Your task to perform on an android device: open app "DoorDash - Food Delivery" Image 0: 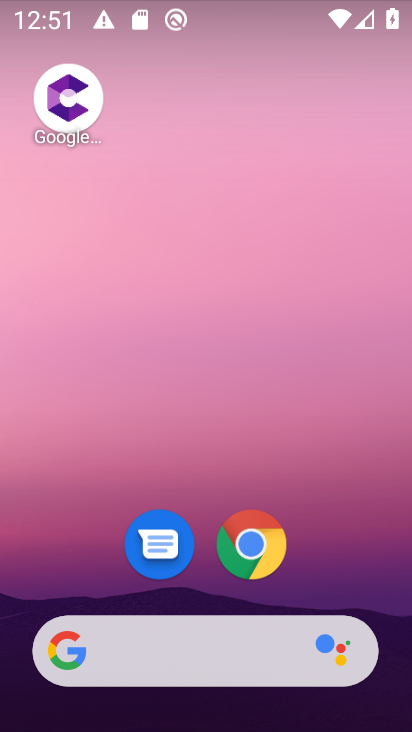
Step 0: drag from (357, 599) to (230, 50)
Your task to perform on an android device: open app "DoorDash - Food Delivery" Image 1: 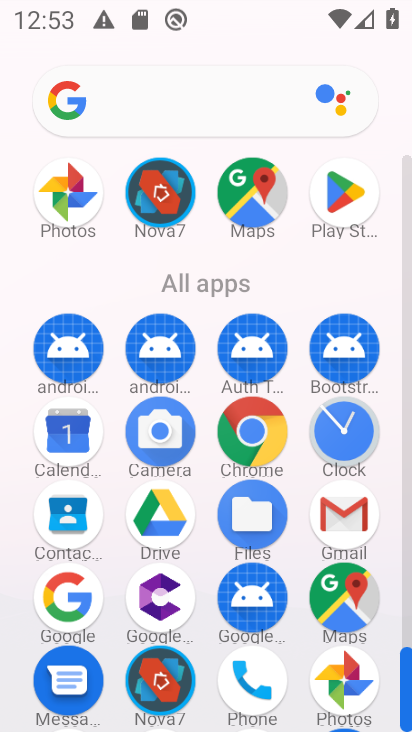
Step 1: click (352, 203)
Your task to perform on an android device: open app "DoorDash - Food Delivery" Image 2: 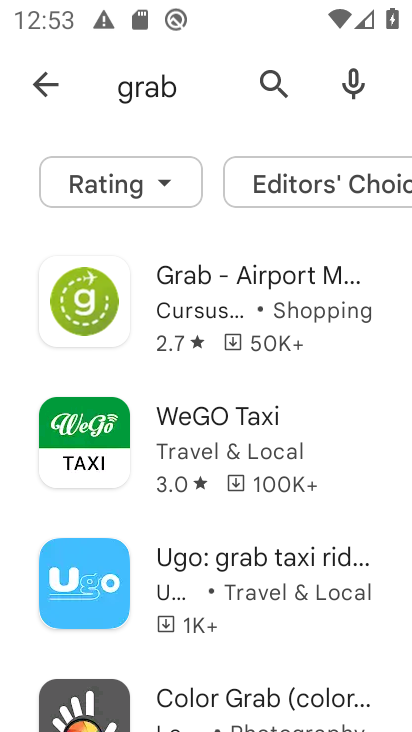
Step 2: press back button
Your task to perform on an android device: open app "DoorDash - Food Delivery" Image 3: 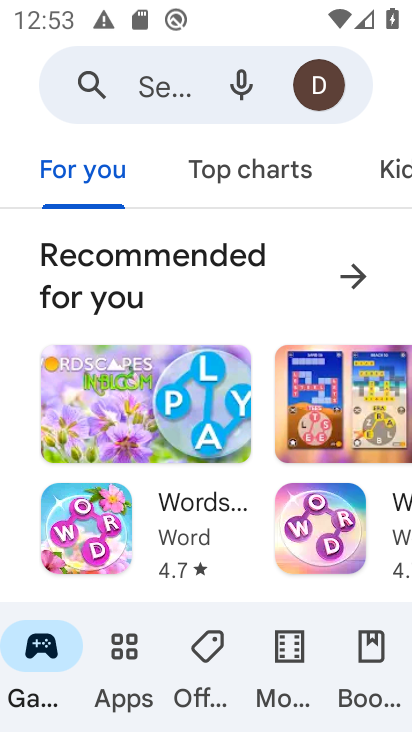
Step 3: click (143, 89)
Your task to perform on an android device: open app "DoorDash - Food Delivery" Image 4: 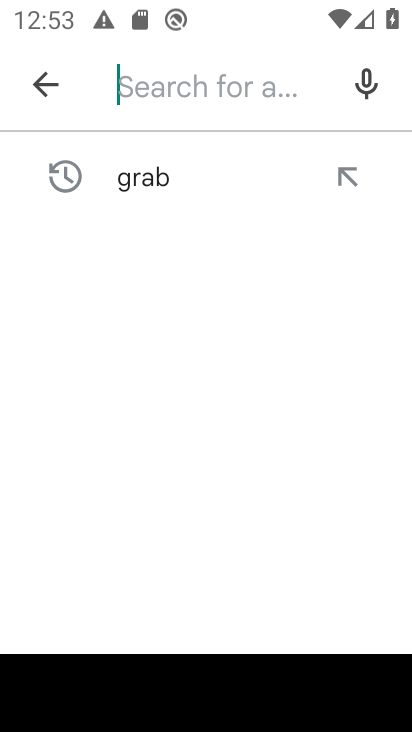
Step 4: type "DoorDash - Food Delivery"
Your task to perform on an android device: open app "DoorDash - Food Delivery" Image 5: 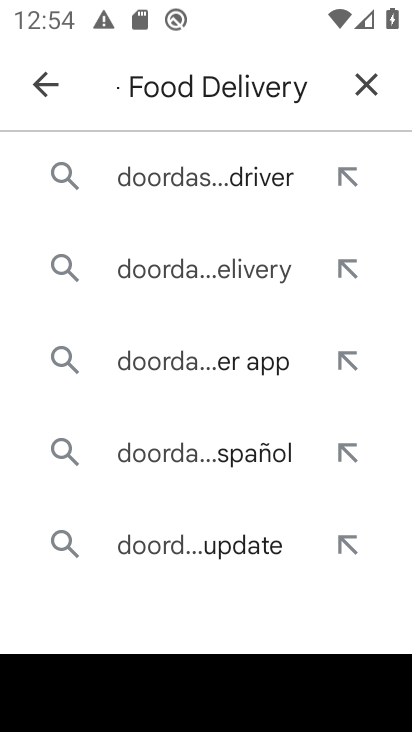
Step 5: click (152, 193)
Your task to perform on an android device: open app "DoorDash - Food Delivery" Image 6: 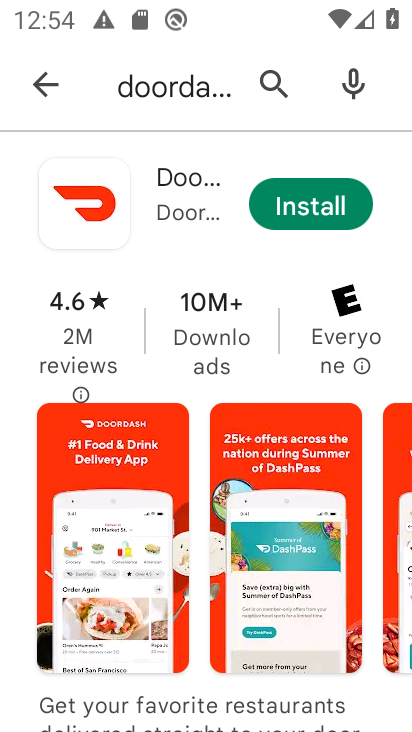
Step 6: task complete